Your task to perform on an android device: toggle data saver in the chrome app Image 0: 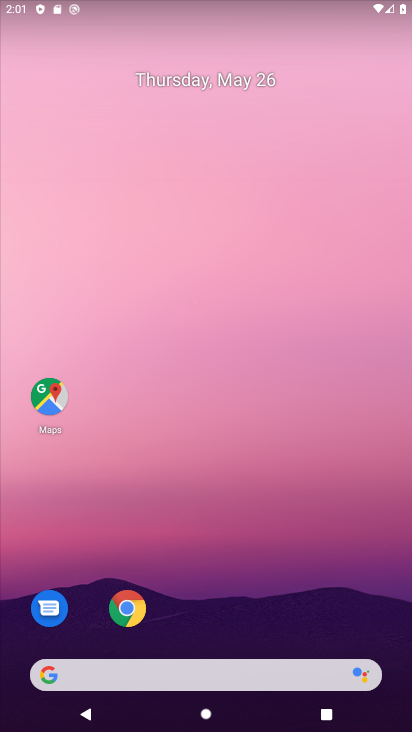
Step 0: drag from (280, 668) to (143, 143)
Your task to perform on an android device: toggle data saver in the chrome app Image 1: 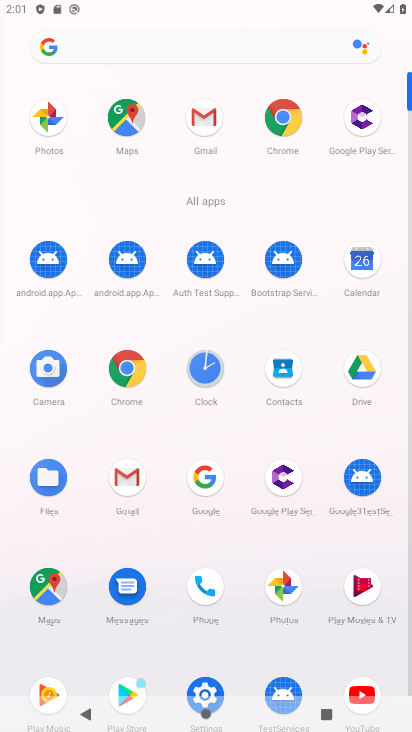
Step 1: click (287, 115)
Your task to perform on an android device: toggle data saver in the chrome app Image 2: 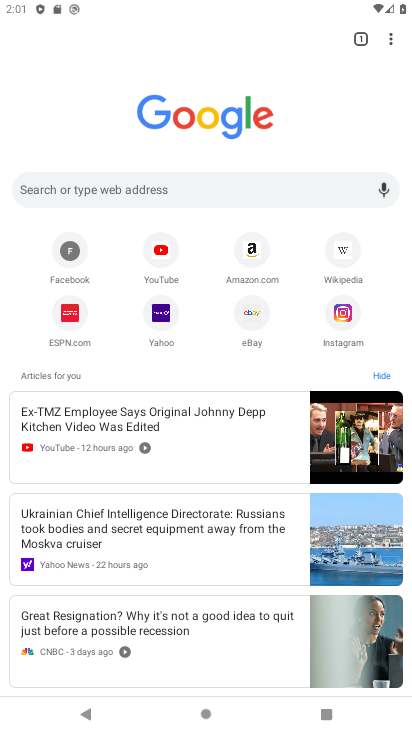
Step 2: drag from (393, 42) to (248, 374)
Your task to perform on an android device: toggle data saver in the chrome app Image 3: 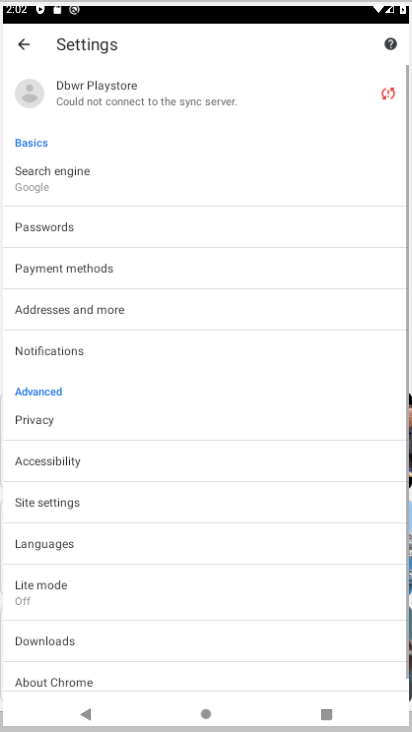
Step 3: click (251, 374)
Your task to perform on an android device: toggle data saver in the chrome app Image 4: 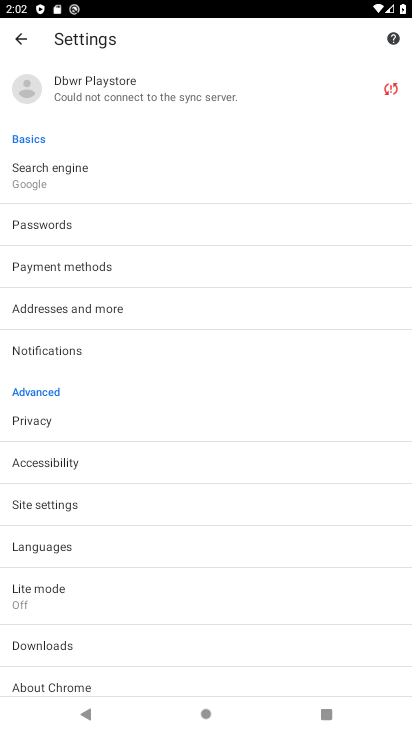
Step 4: click (45, 586)
Your task to perform on an android device: toggle data saver in the chrome app Image 5: 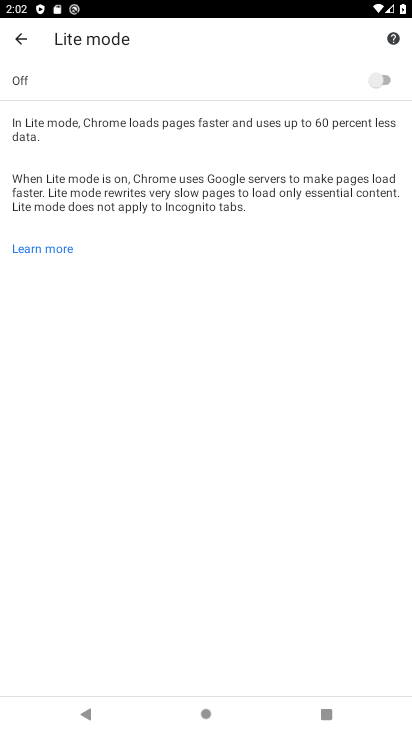
Step 5: click (372, 88)
Your task to perform on an android device: toggle data saver in the chrome app Image 6: 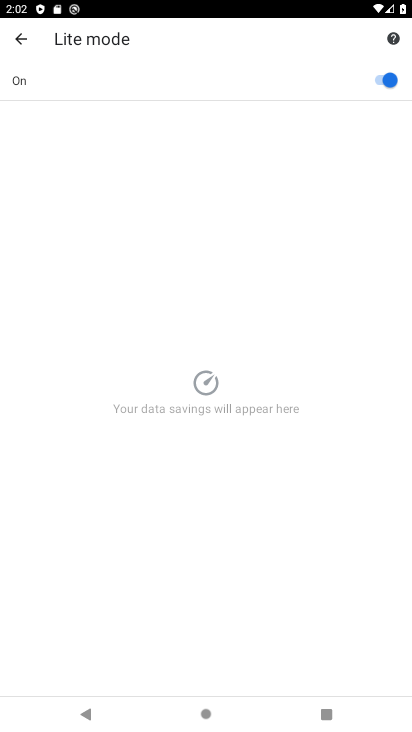
Step 6: task complete